Your task to perform on an android device: open app "Flipkart Online Shopping App" (install if not already installed), go to login, and select forgot password Image 0: 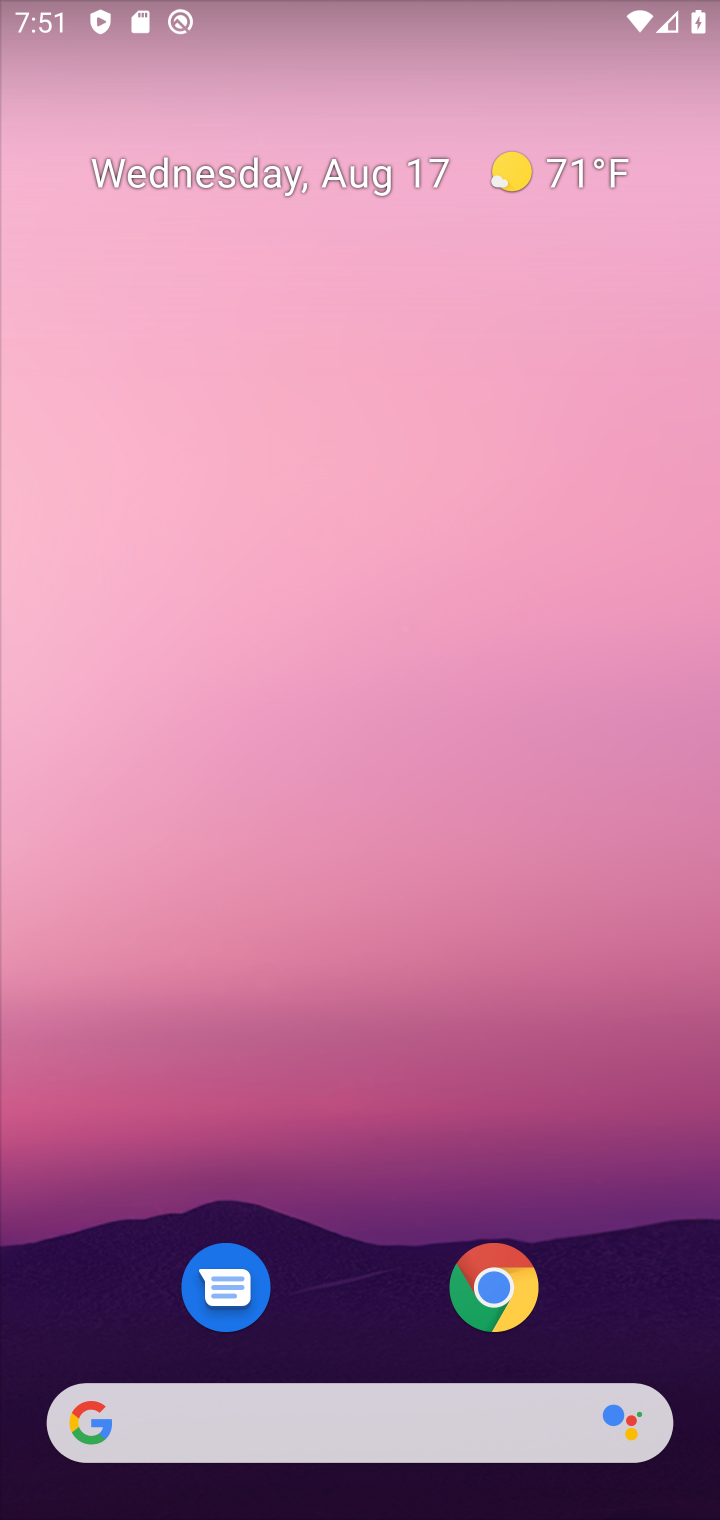
Step 0: drag from (438, 1414) to (395, 554)
Your task to perform on an android device: open app "Flipkart Online Shopping App" (install if not already installed), go to login, and select forgot password Image 1: 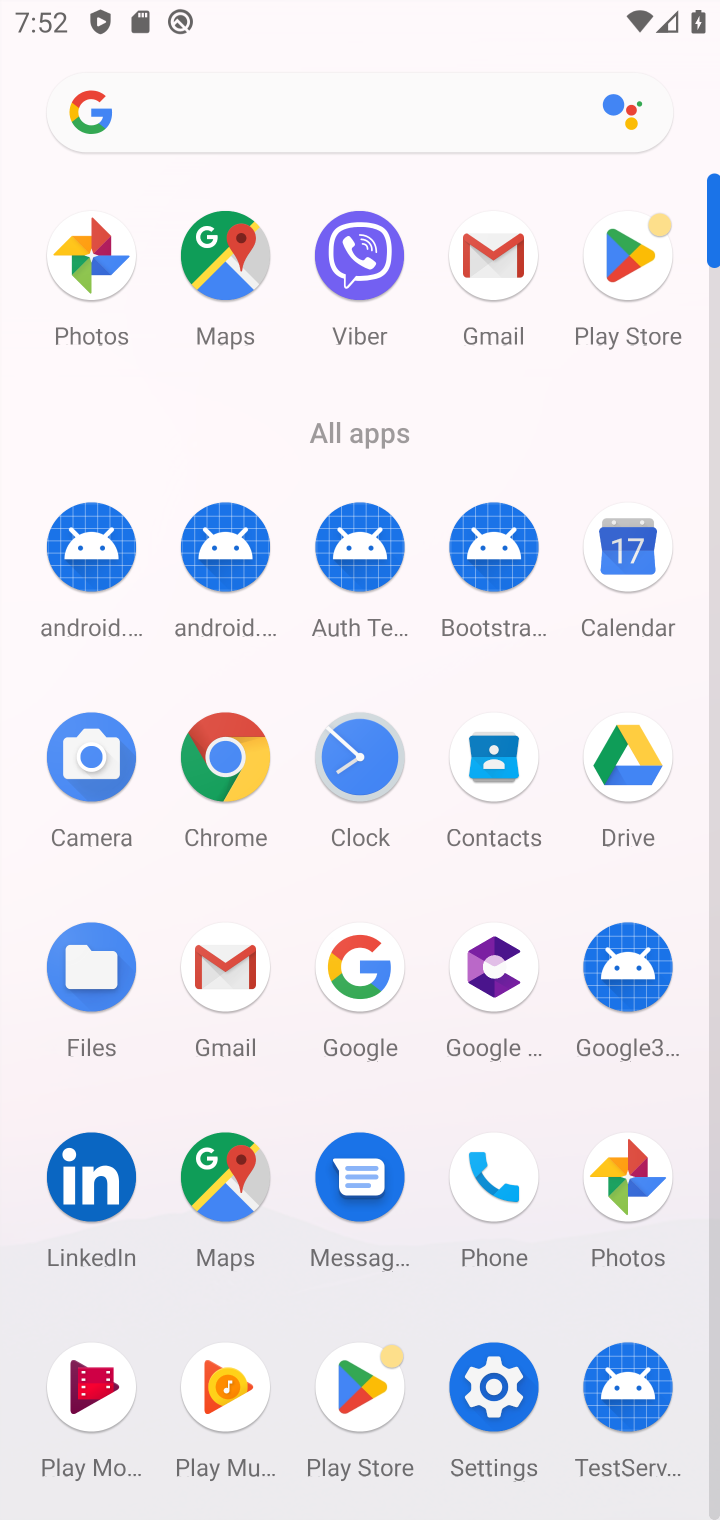
Step 1: click (612, 241)
Your task to perform on an android device: open app "Flipkart Online Shopping App" (install if not already installed), go to login, and select forgot password Image 2: 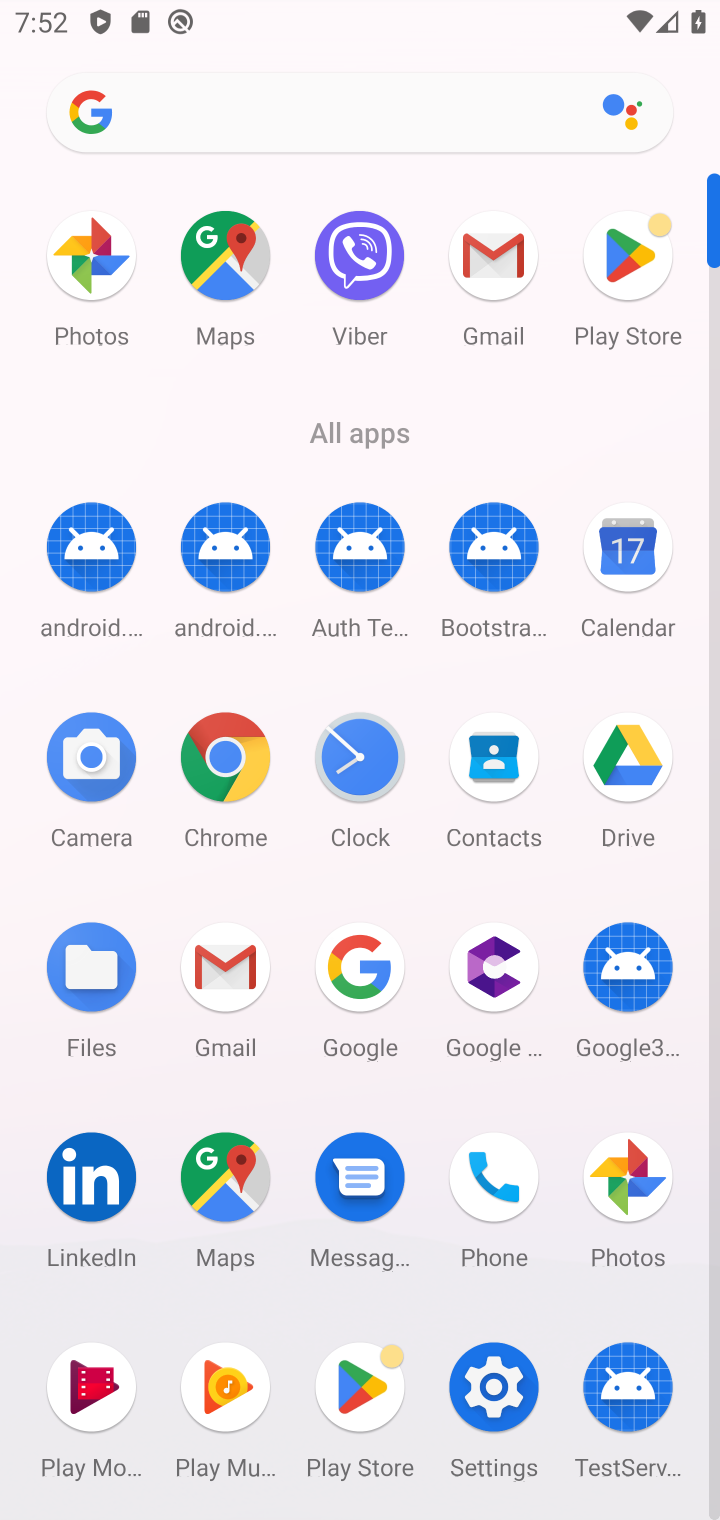
Step 2: click (364, 1420)
Your task to perform on an android device: open app "Flipkart Online Shopping App" (install if not already installed), go to login, and select forgot password Image 3: 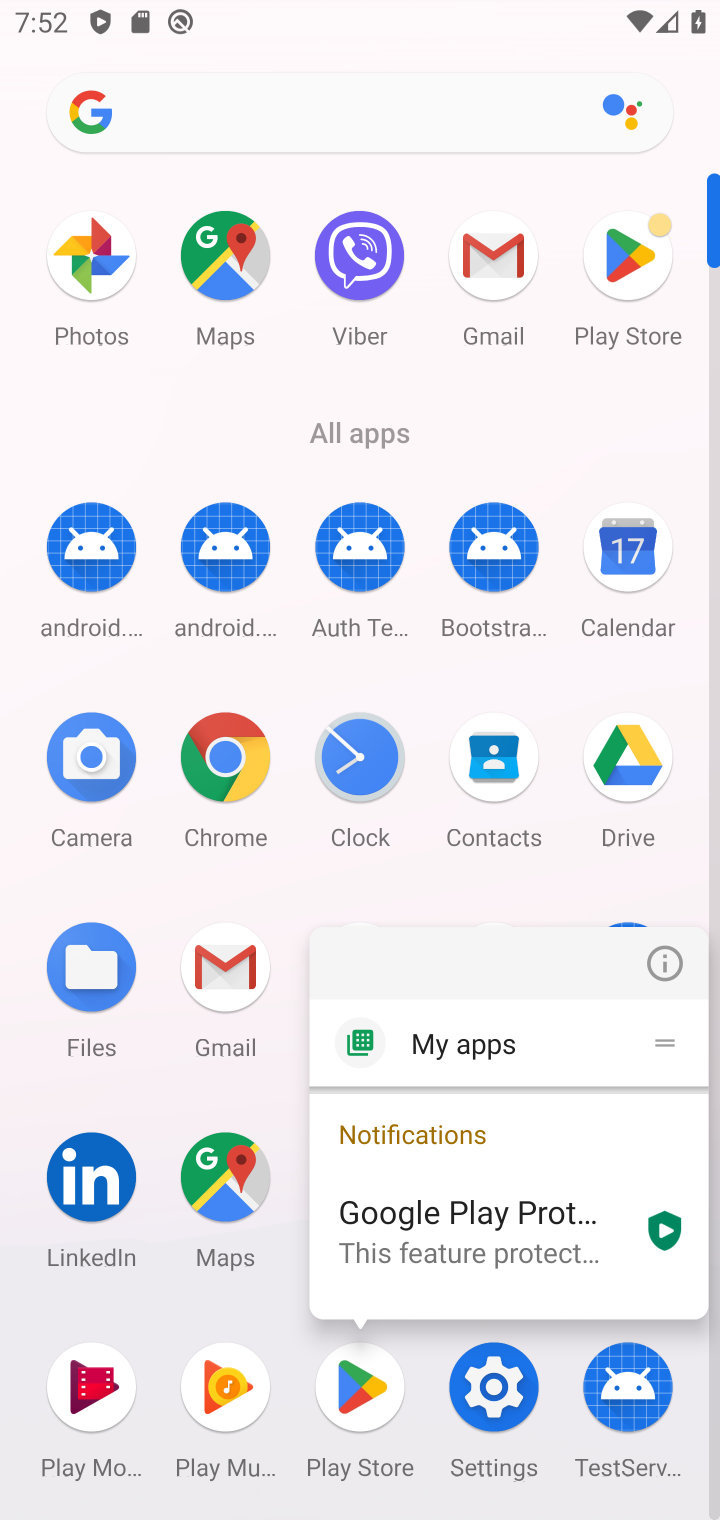
Step 3: click (364, 1420)
Your task to perform on an android device: open app "Flipkart Online Shopping App" (install if not already installed), go to login, and select forgot password Image 4: 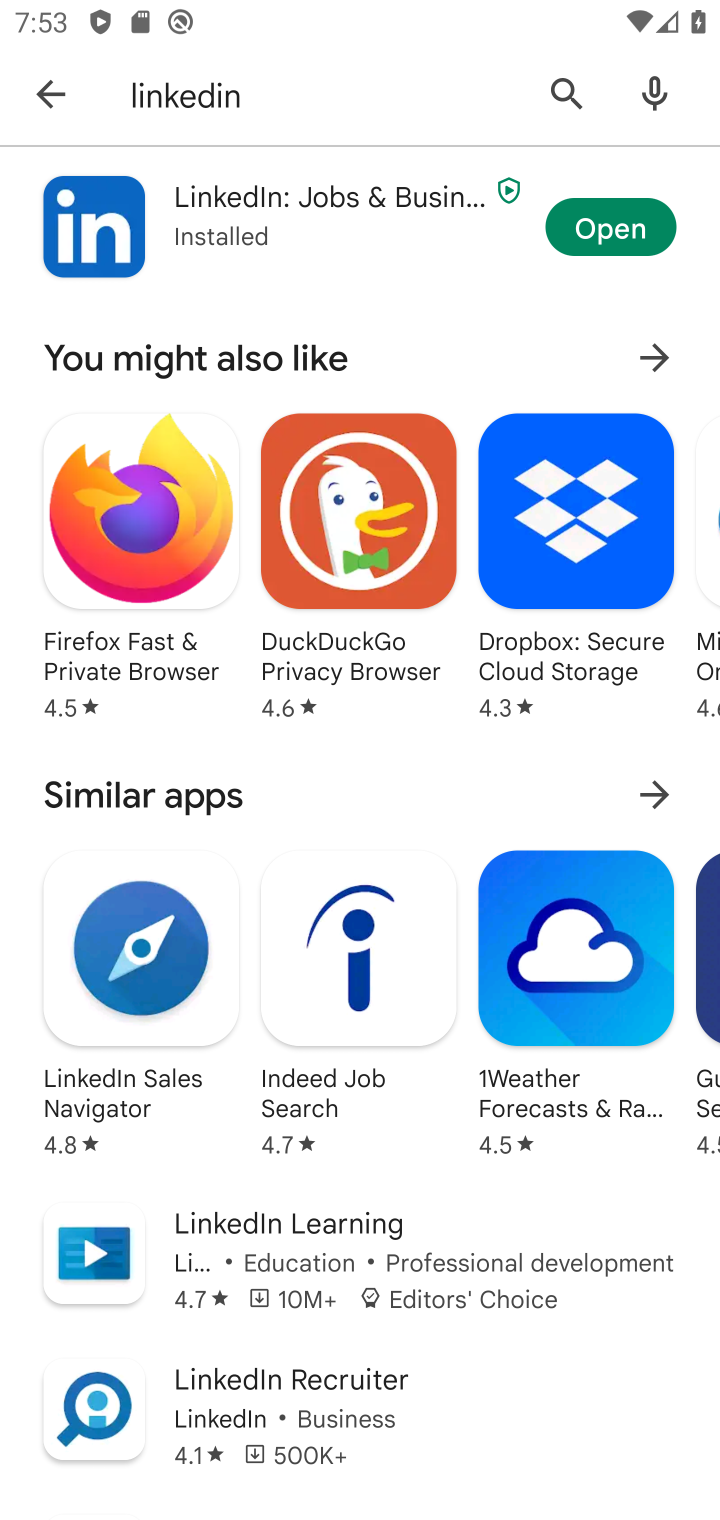
Step 4: click (558, 91)
Your task to perform on an android device: open app "Flipkart Online Shopping App" (install if not already installed), go to login, and select forgot password Image 5: 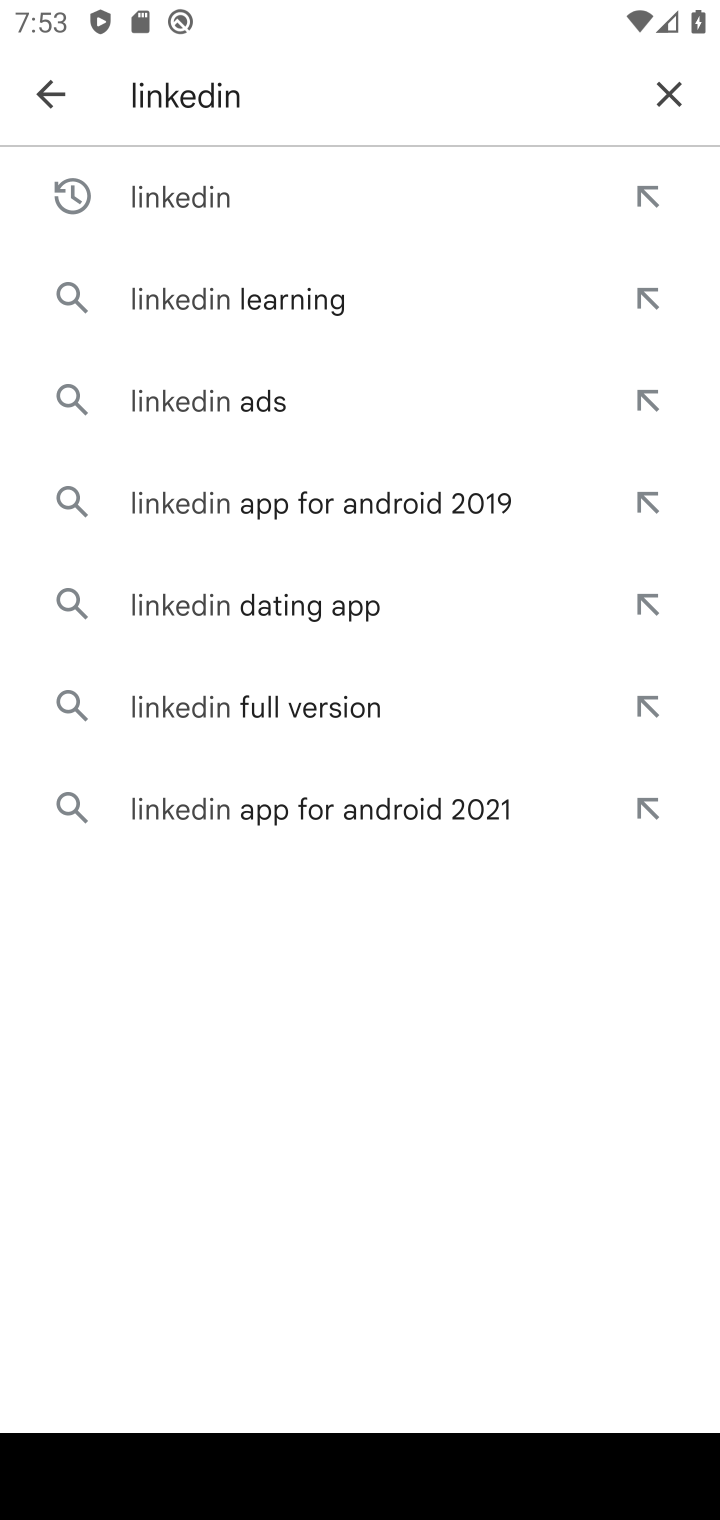
Step 5: click (651, 87)
Your task to perform on an android device: open app "Flipkart Online Shopping App" (install if not already installed), go to login, and select forgot password Image 6: 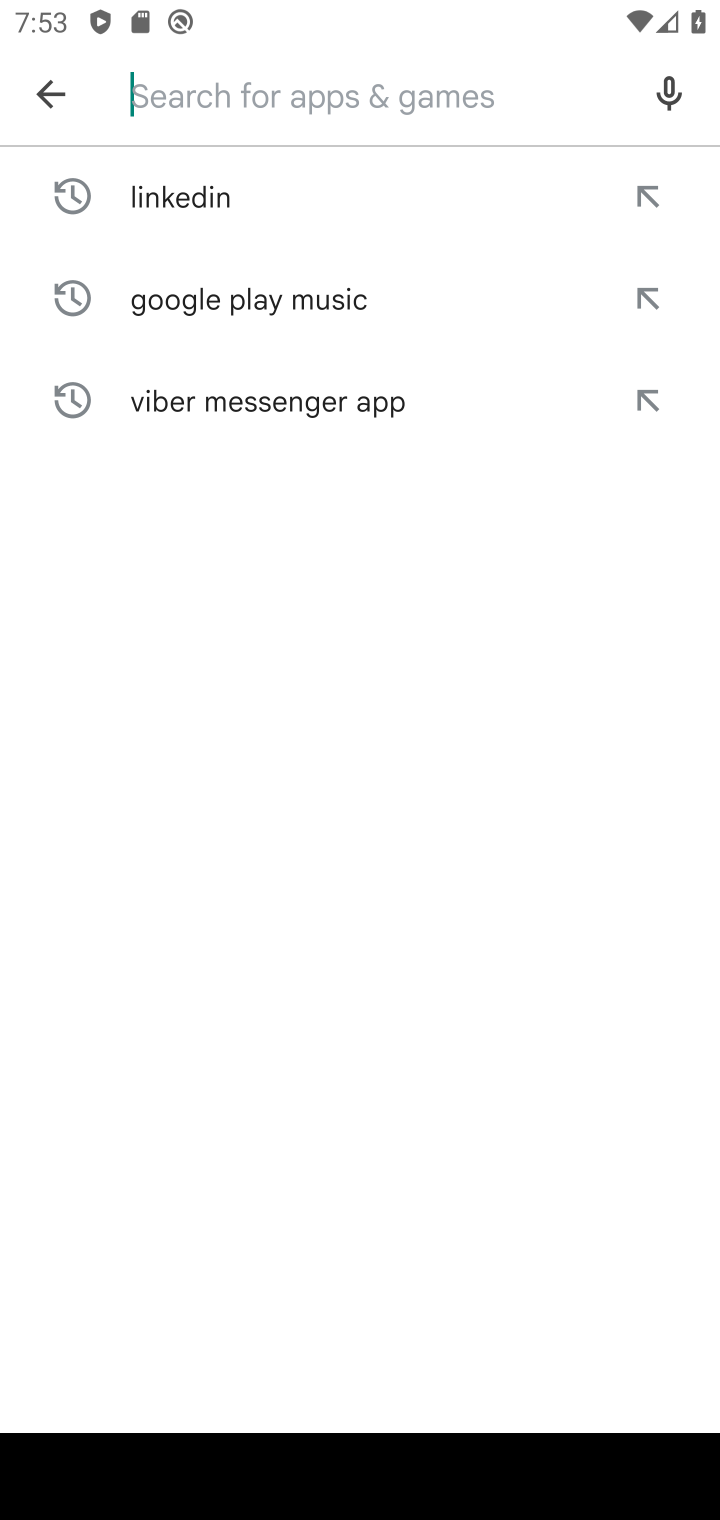
Step 6: type "flipkart"
Your task to perform on an android device: open app "Flipkart Online Shopping App" (install if not already installed), go to login, and select forgot password Image 7: 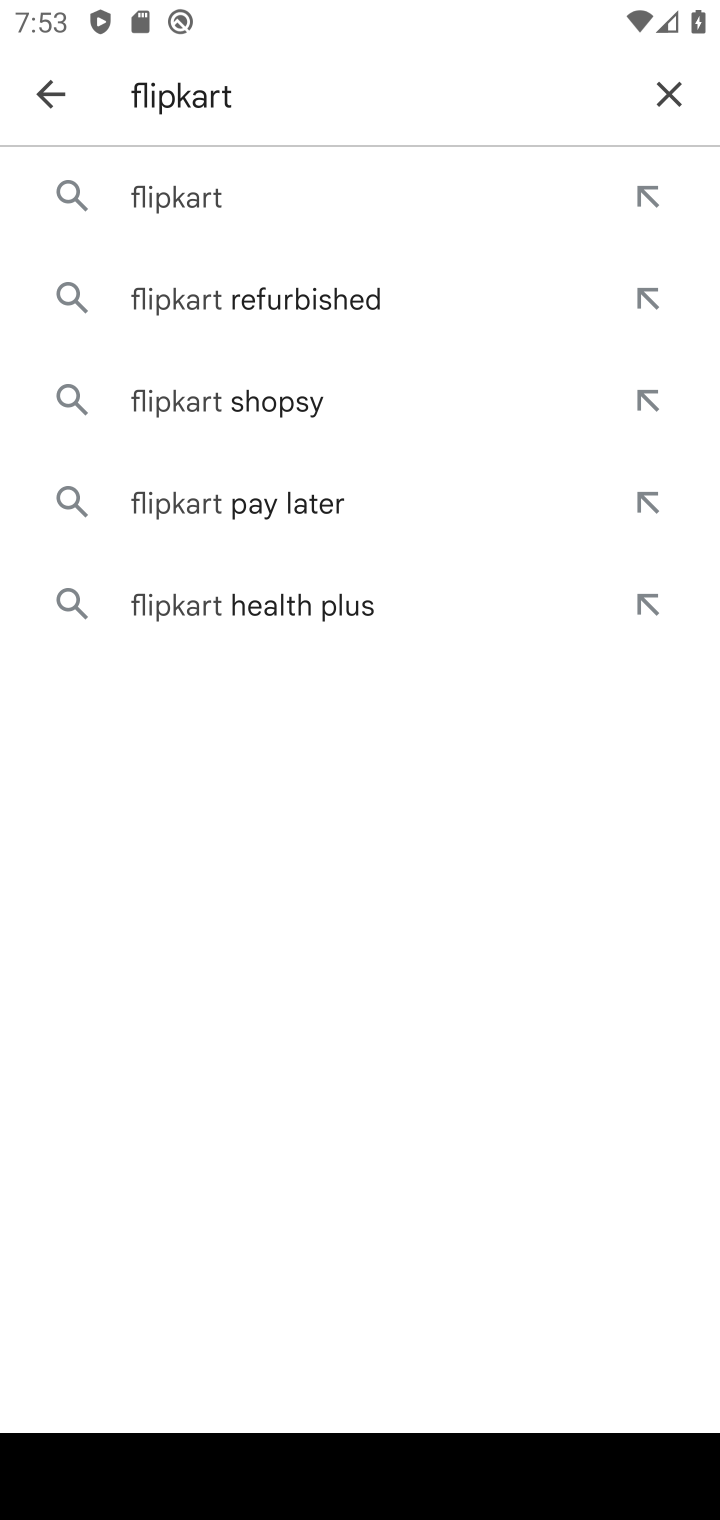
Step 7: click (240, 208)
Your task to perform on an android device: open app "Flipkart Online Shopping App" (install if not already installed), go to login, and select forgot password Image 8: 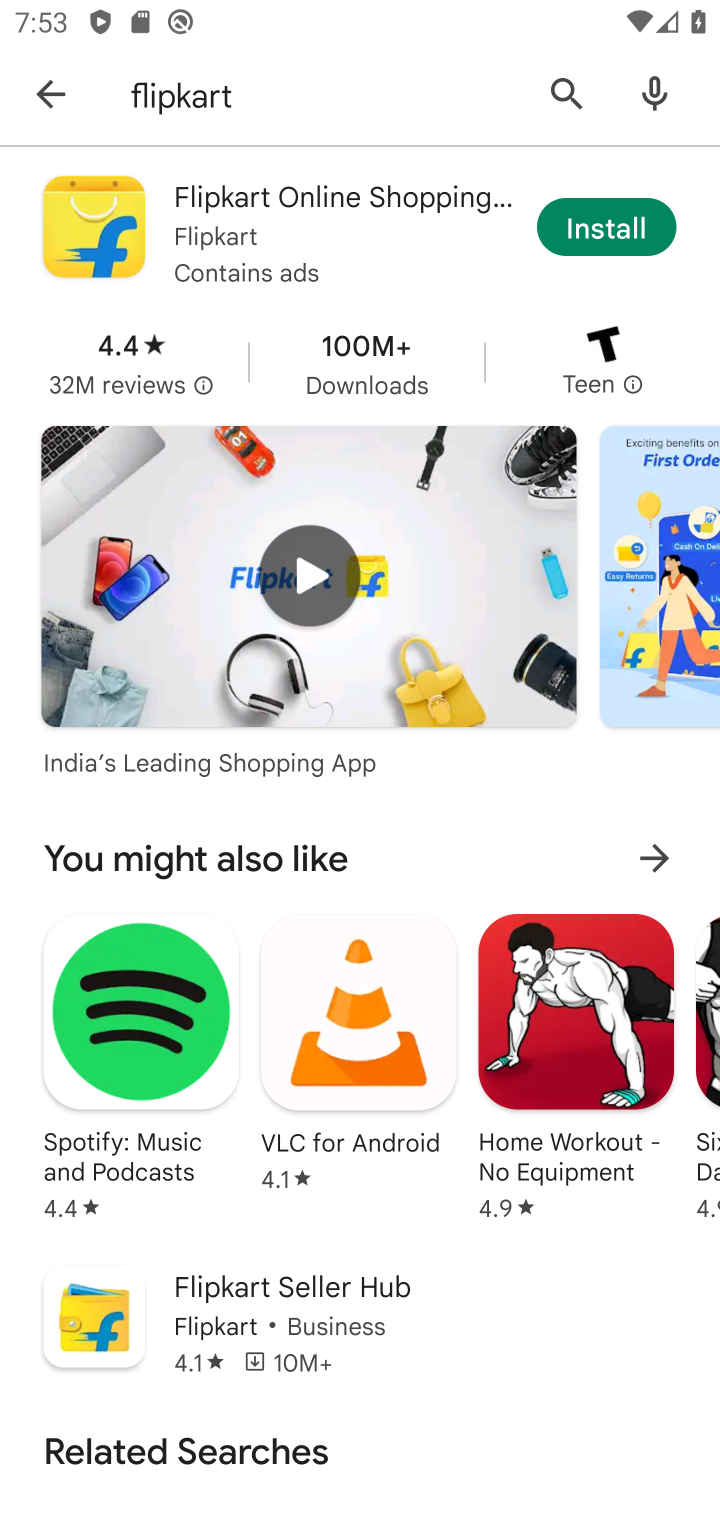
Step 8: click (548, 249)
Your task to perform on an android device: open app "Flipkart Online Shopping App" (install if not already installed), go to login, and select forgot password Image 9: 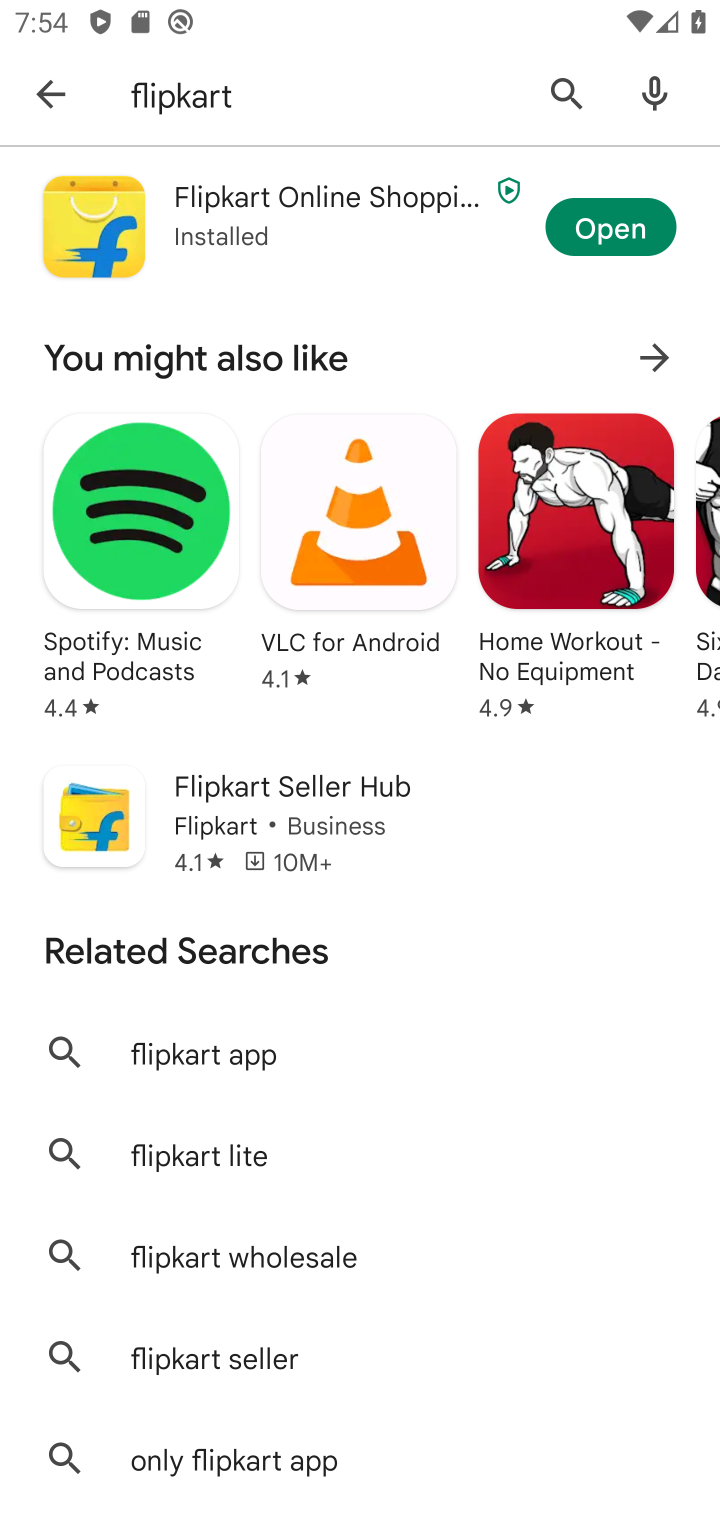
Step 9: click (583, 206)
Your task to perform on an android device: open app "Flipkart Online Shopping App" (install if not already installed), go to login, and select forgot password Image 10: 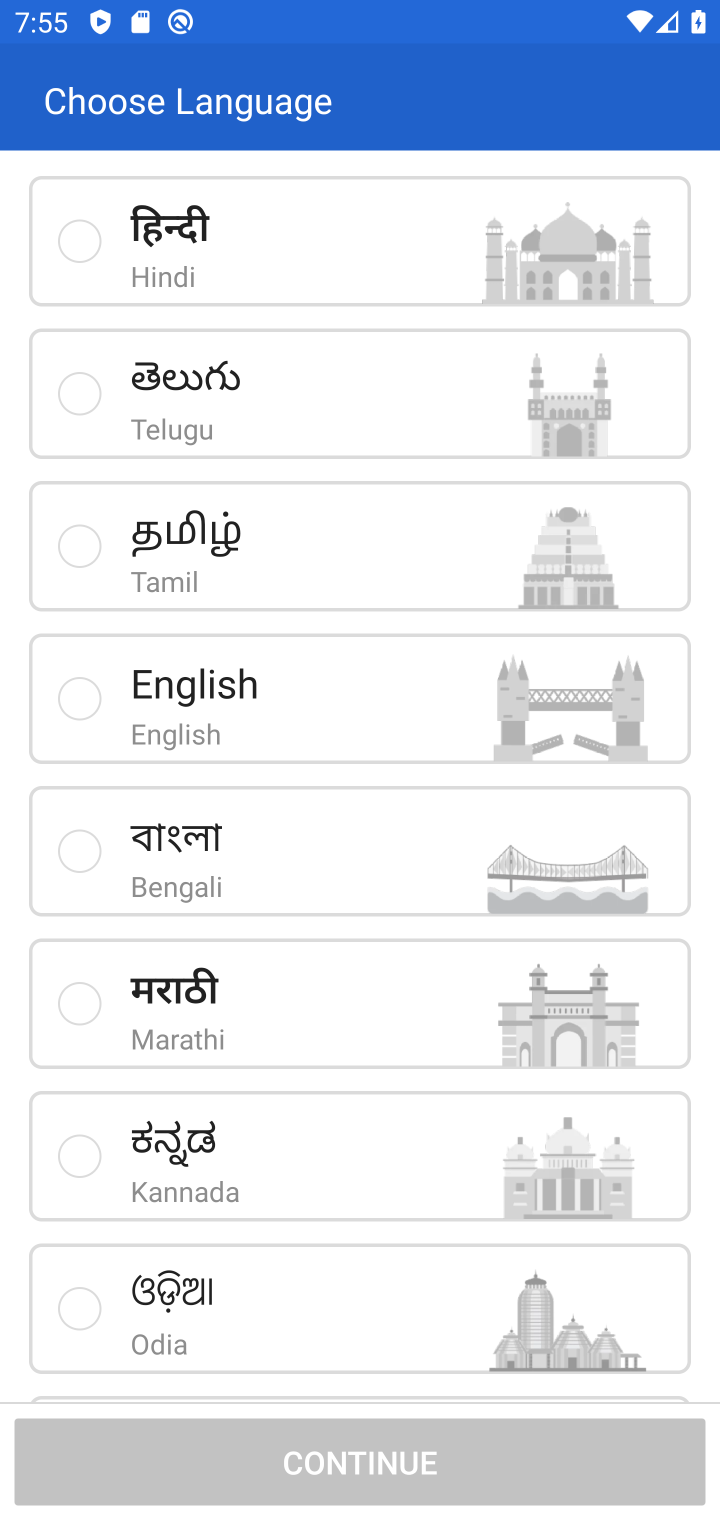
Step 10: click (97, 701)
Your task to perform on an android device: open app "Flipkart Online Shopping App" (install if not already installed), go to login, and select forgot password Image 11: 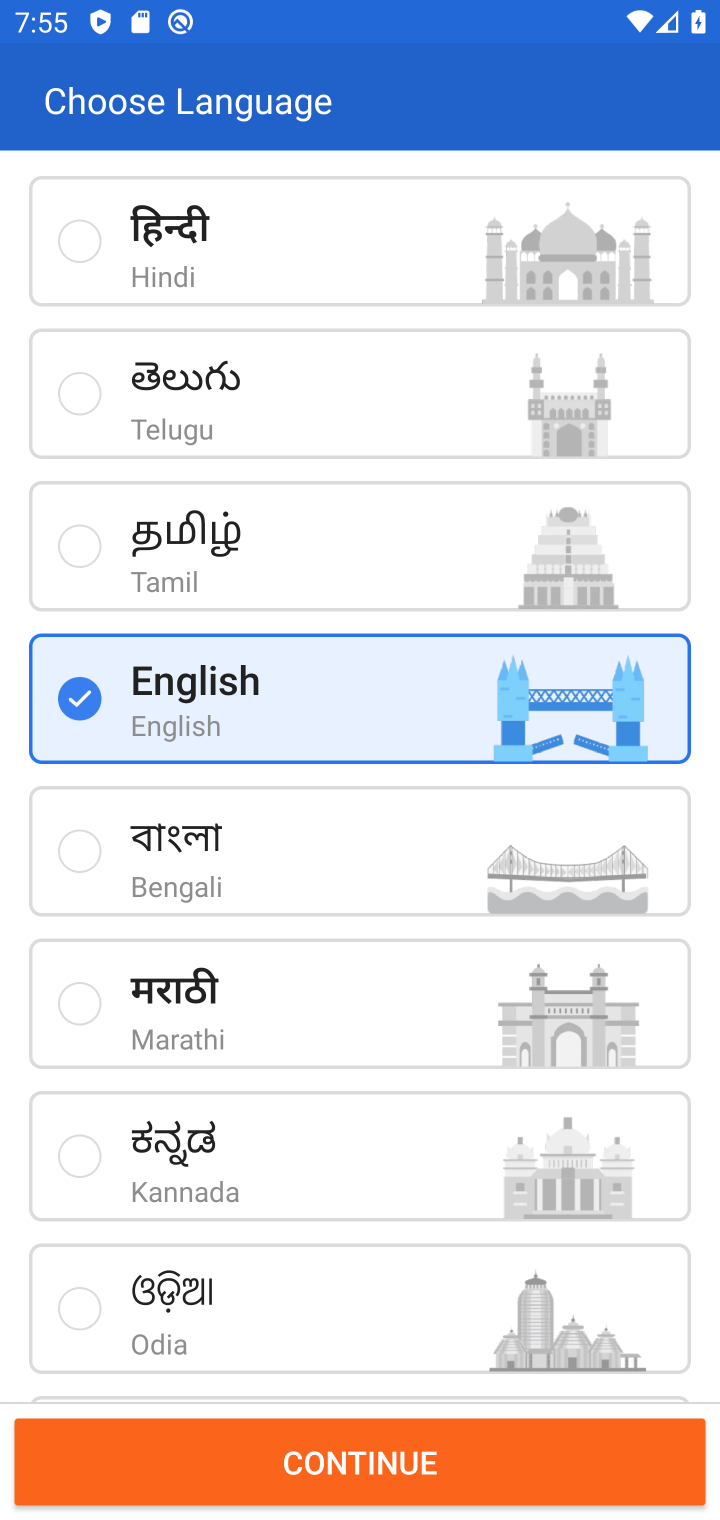
Step 11: click (449, 1485)
Your task to perform on an android device: open app "Flipkart Online Shopping App" (install if not already installed), go to login, and select forgot password Image 12: 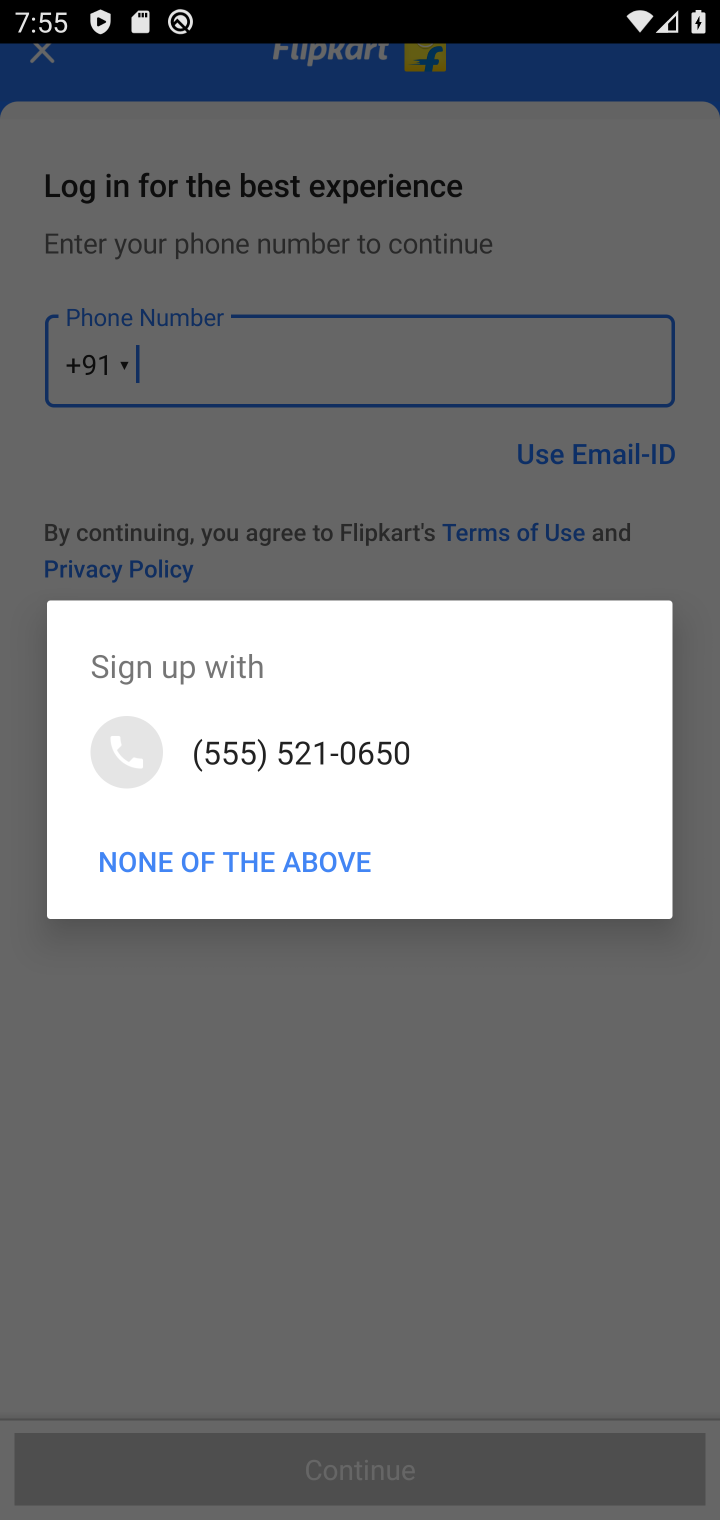
Step 12: click (196, 859)
Your task to perform on an android device: open app "Flipkart Online Shopping App" (install if not already installed), go to login, and select forgot password Image 13: 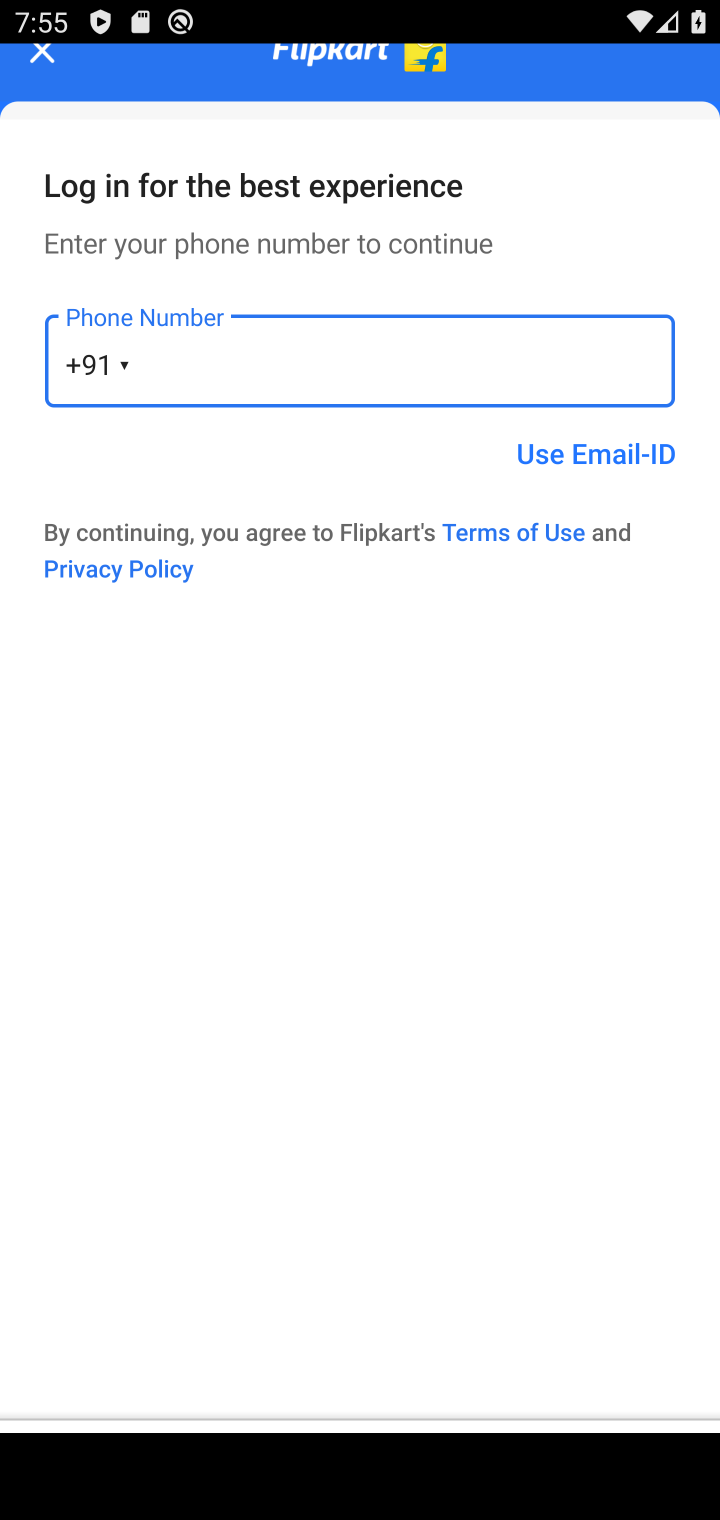
Step 13: click (618, 459)
Your task to perform on an android device: open app "Flipkart Online Shopping App" (install if not already installed), go to login, and select forgot password Image 14: 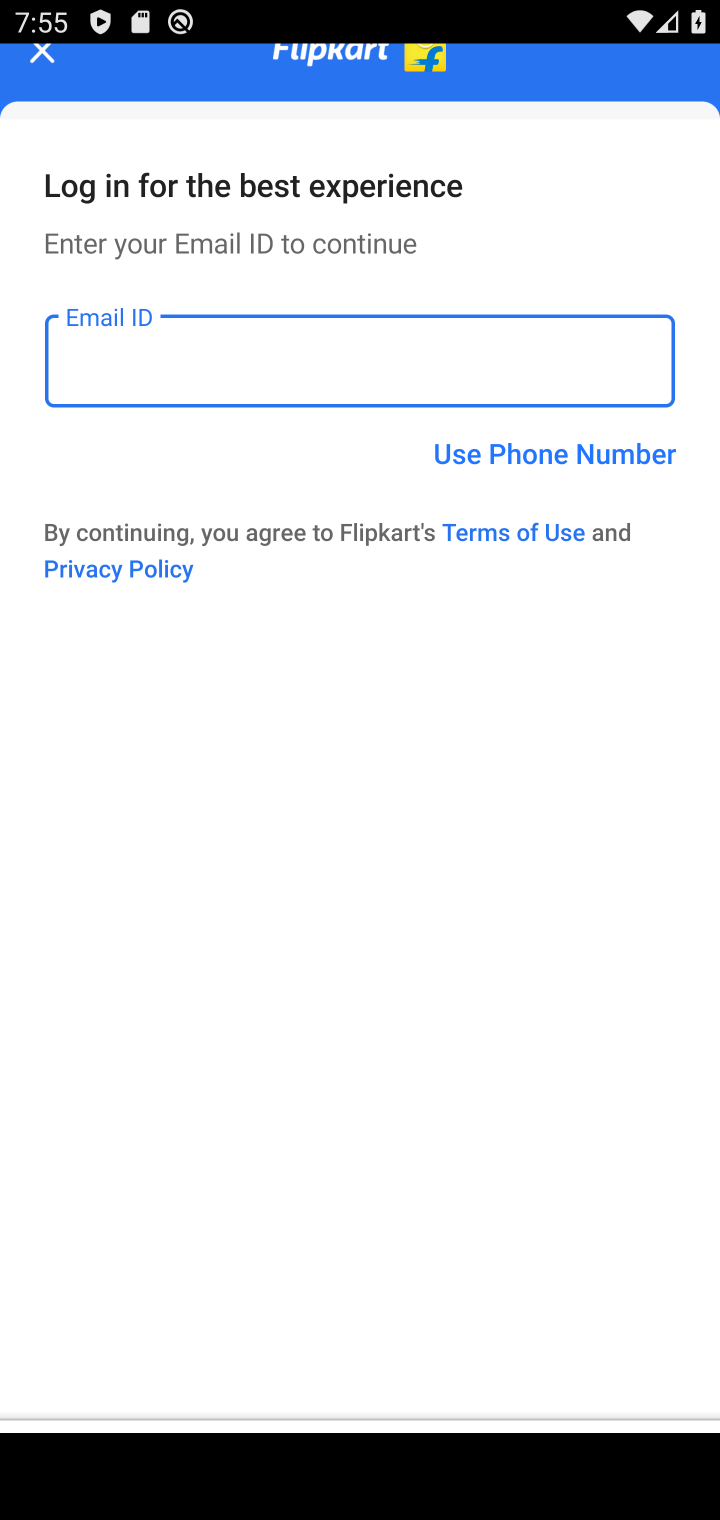
Step 14: task complete